Your task to perform on an android device: open chrome privacy settings Image 0: 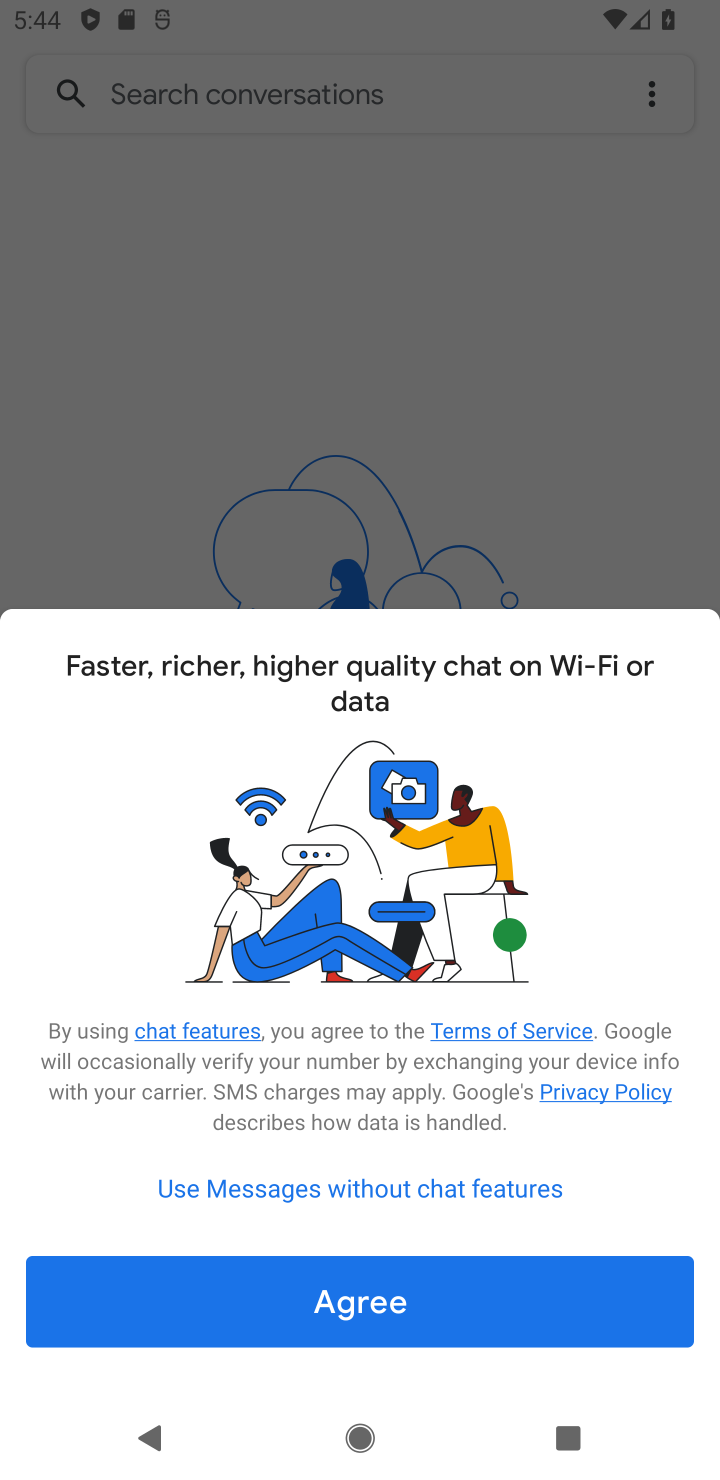
Step 0: press home button
Your task to perform on an android device: open chrome privacy settings Image 1: 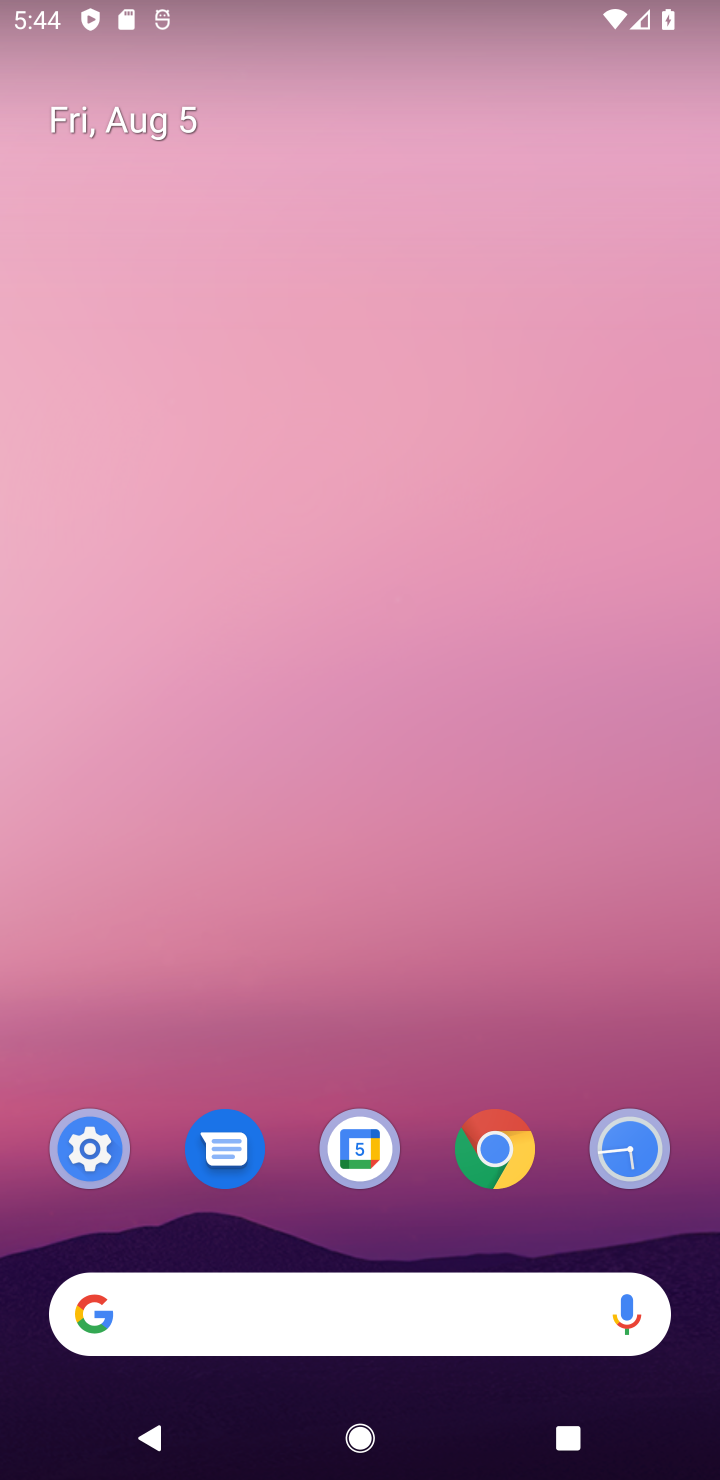
Step 1: click (497, 1165)
Your task to perform on an android device: open chrome privacy settings Image 2: 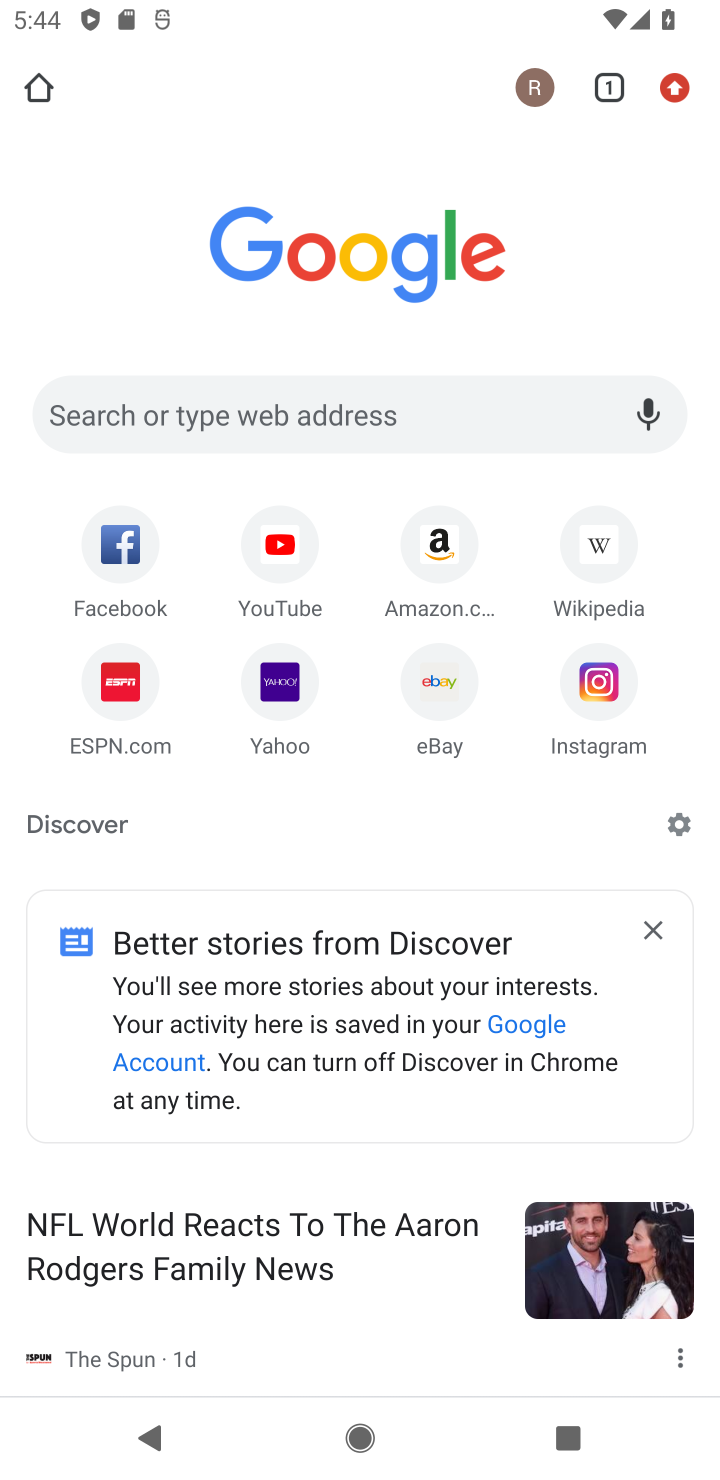
Step 2: click (669, 92)
Your task to perform on an android device: open chrome privacy settings Image 3: 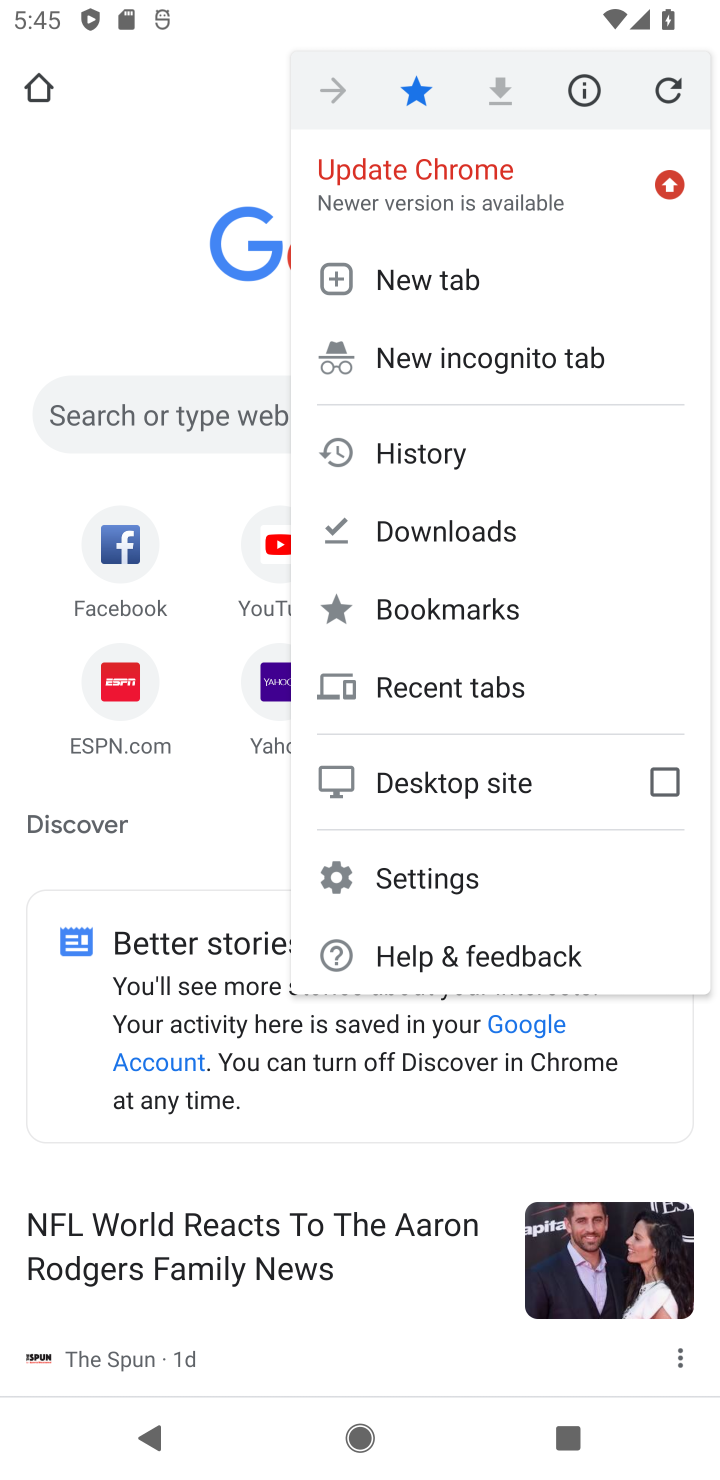
Step 3: click (421, 873)
Your task to perform on an android device: open chrome privacy settings Image 4: 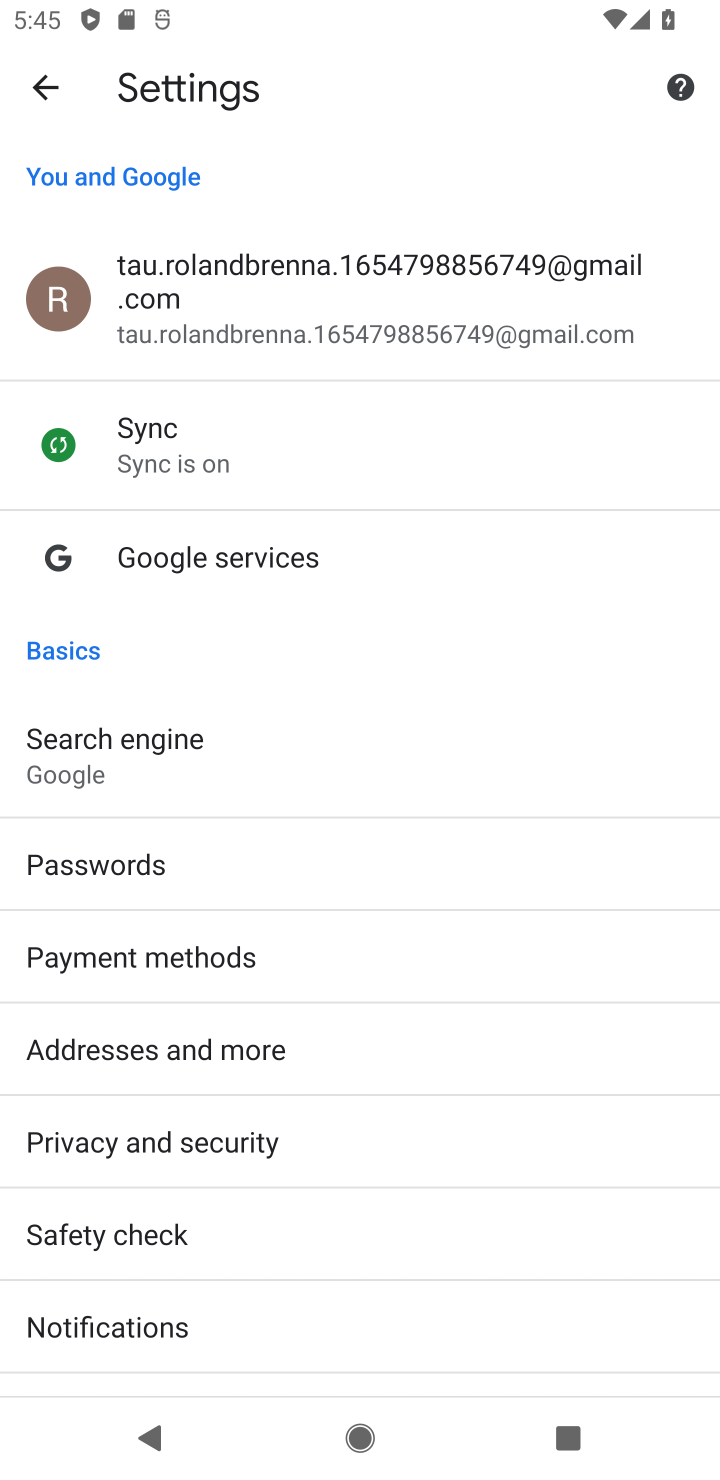
Step 4: click (173, 1142)
Your task to perform on an android device: open chrome privacy settings Image 5: 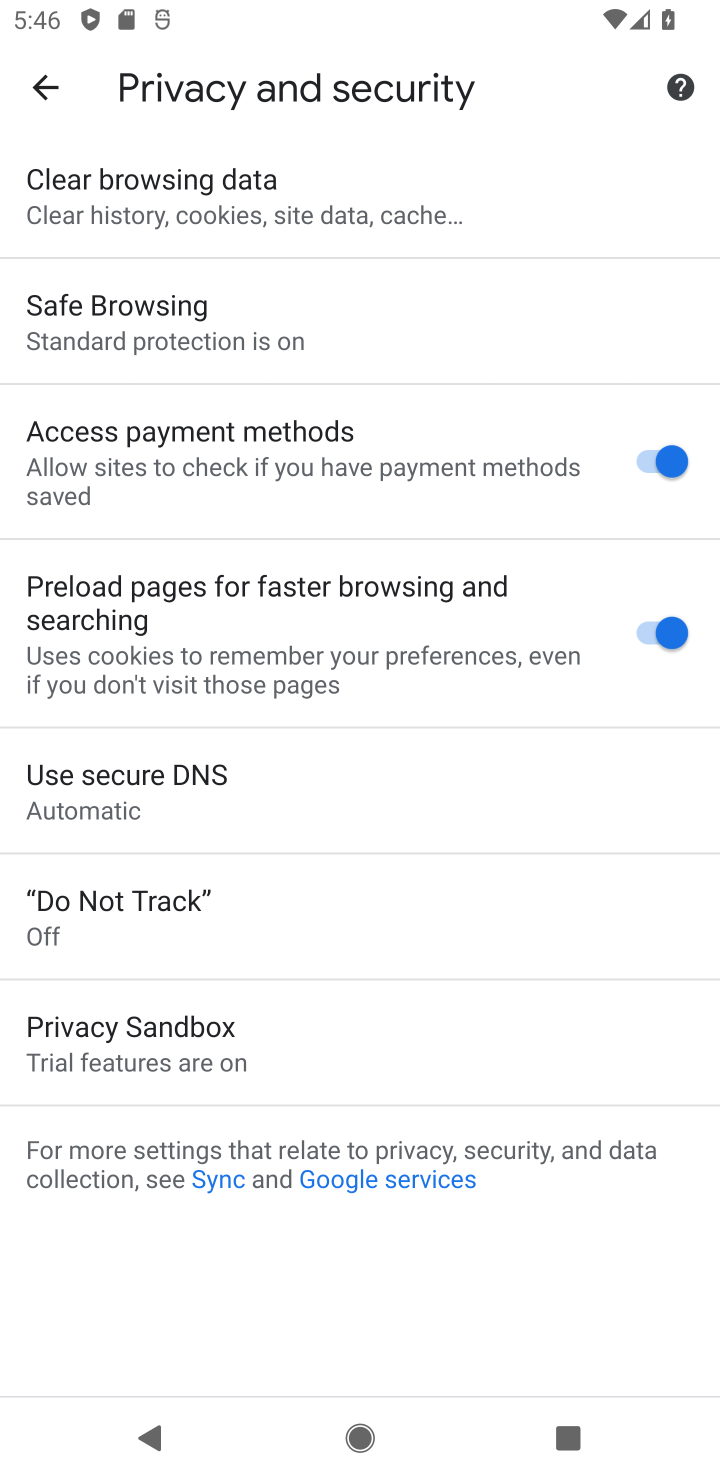
Step 5: task complete